Your task to perform on an android device: delete browsing data in the chrome app Image 0: 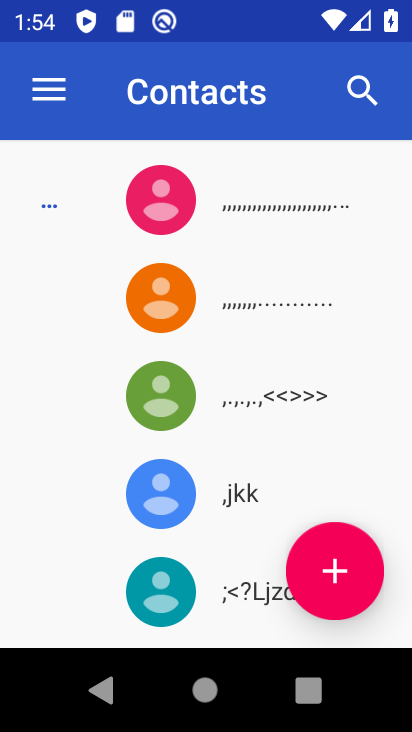
Step 0: press home button
Your task to perform on an android device: delete browsing data in the chrome app Image 1: 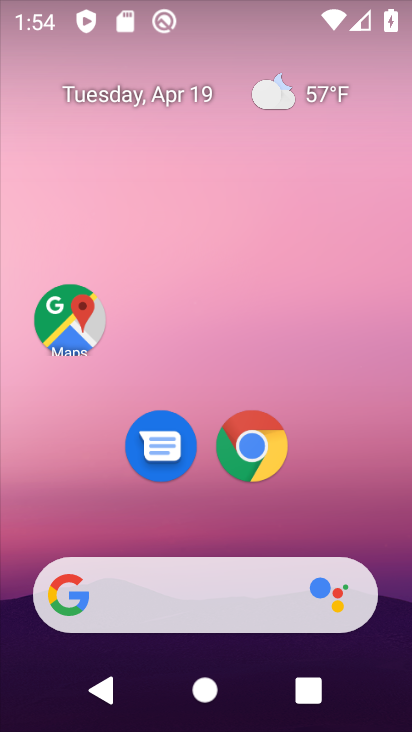
Step 1: click (260, 454)
Your task to perform on an android device: delete browsing data in the chrome app Image 2: 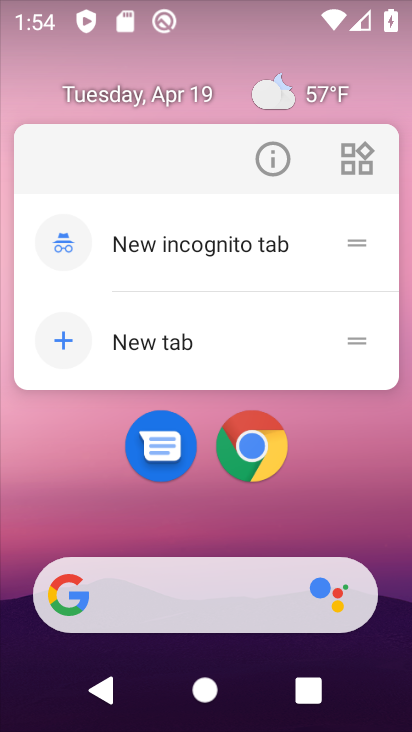
Step 2: click (260, 452)
Your task to perform on an android device: delete browsing data in the chrome app Image 3: 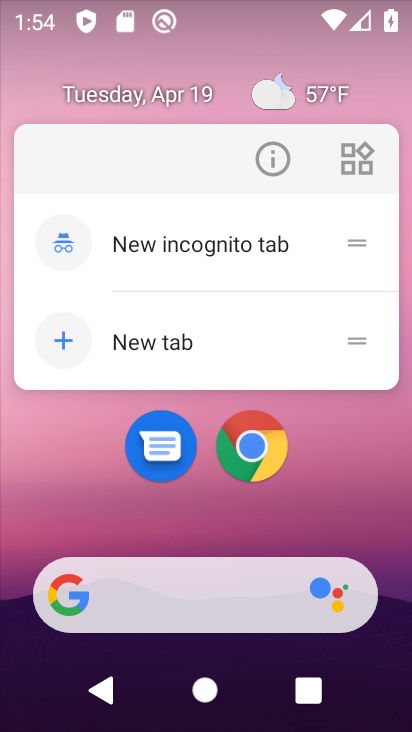
Step 3: click (259, 451)
Your task to perform on an android device: delete browsing data in the chrome app Image 4: 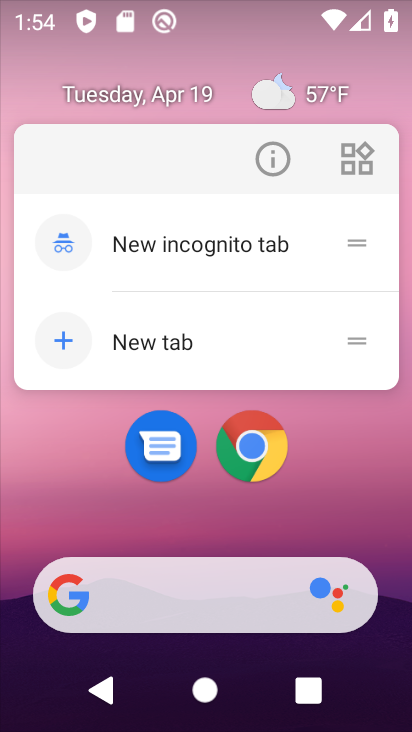
Step 4: click (259, 451)
Your task to perform on an android device: delete browsing data in the chrome app Image 5: 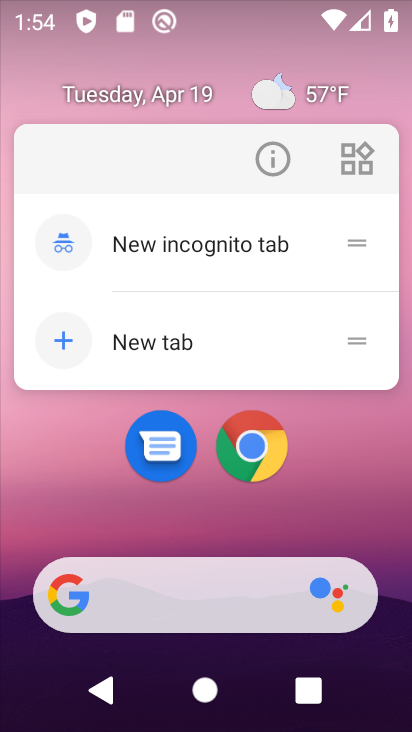
Step 5: click (259, 451)
Your task to perform on an android device: delete browsing data in the chrome app Image 6: 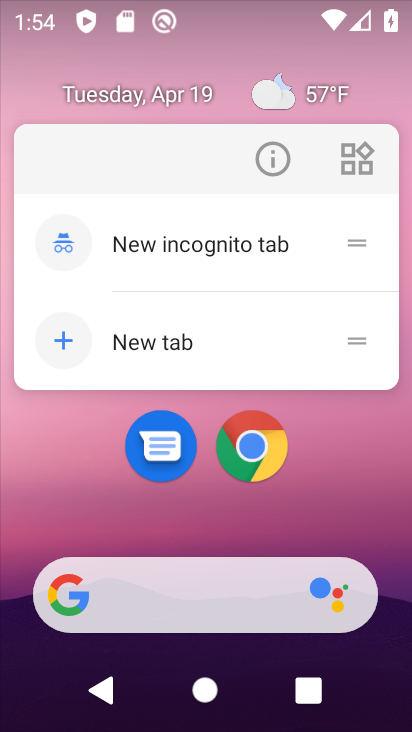
Step 6: click (259, 450)
Your task to perform on an android device: delete browsing data in the chrome app Image 7: 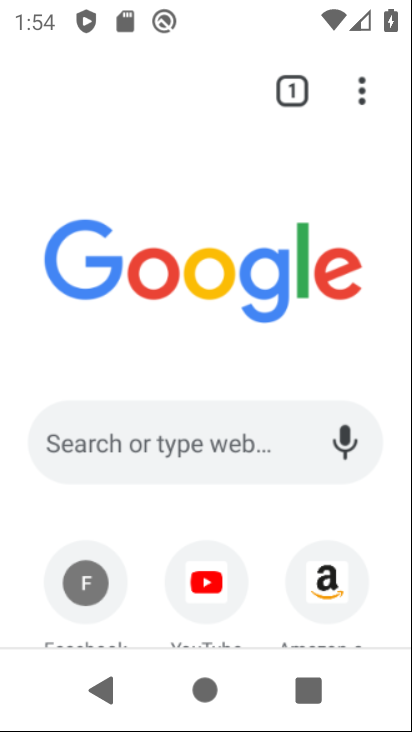
Step 7: click (259, 449)
Your task to perform on an android device: delete browsing data in the chrome app Image 8: 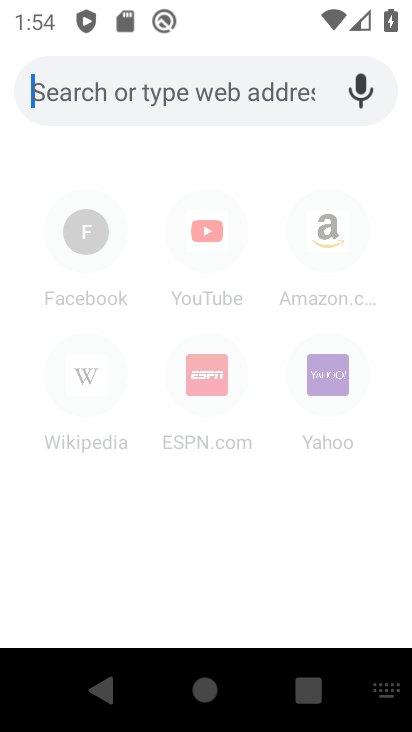
Step 8: click (108, 688)
Your task to perform on an android device: delete browsing data in the chrome app Image 9: 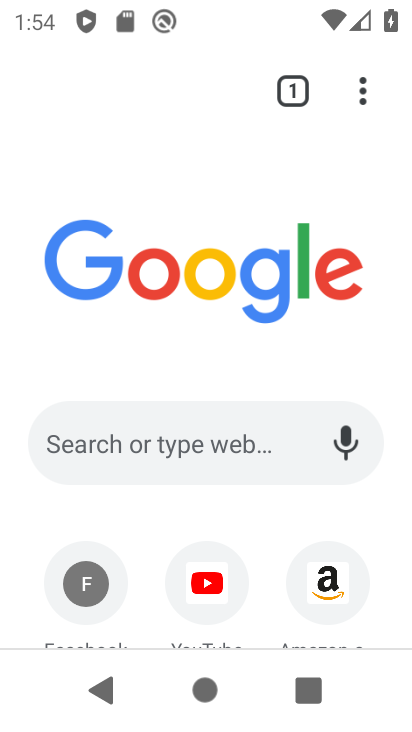
Step 9: click (368, 94)
Your task to perform on an android device: delete browsing data in the chrome app Image 10: 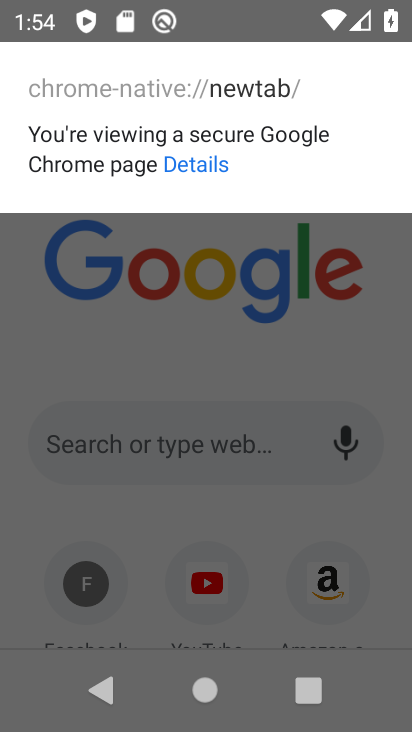
Step 10: click (376, 314)
Your task to perform on an android device: delete browsing data in the chrome app Image 11: 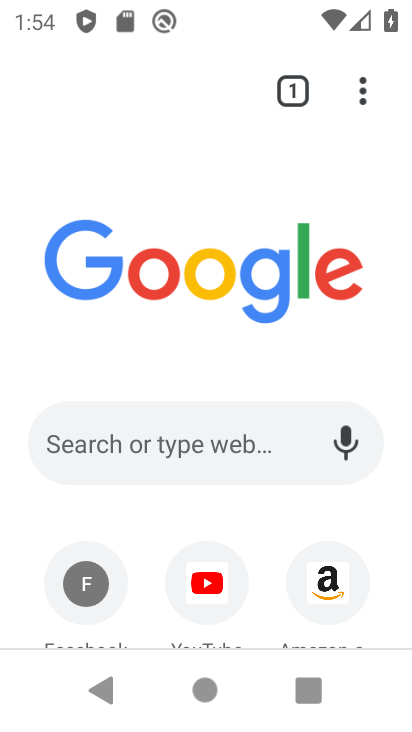
Step 11: task complete